Your task to perform on an android device: turn off data saver in the chrome app Image 0: 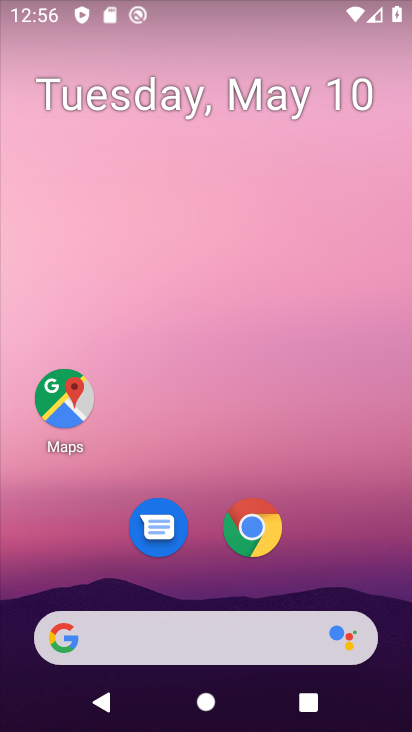
Step 0: click (254, 538)
Your task to perform on an android device: turn off data saver in the chrome app Image 1: 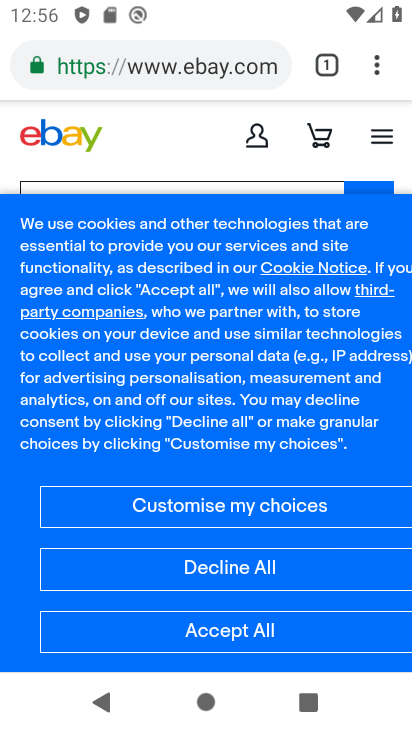
Step 1: drag from (378, 67) to (152, 593)
Your task to perform on an android device: turn off data saver in the chrome app Image 2: 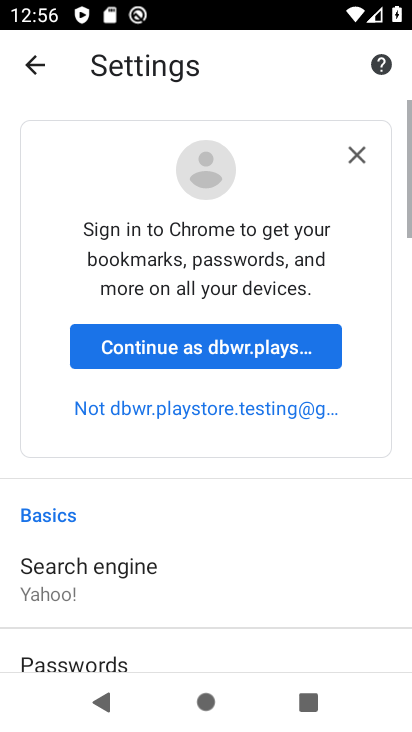
Step 2: drag from (228, 596) to (257, 220)
Your task to perform on an android device: turn off data saver in the chrome app Image 3: 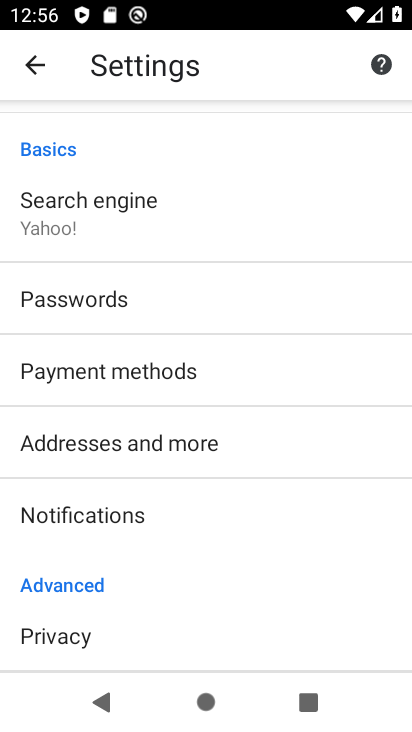
Step 3: drag from (201, 509) to (201, 319)
Your task to perform on an android device: turn off data saver in the chrome app Image 4: 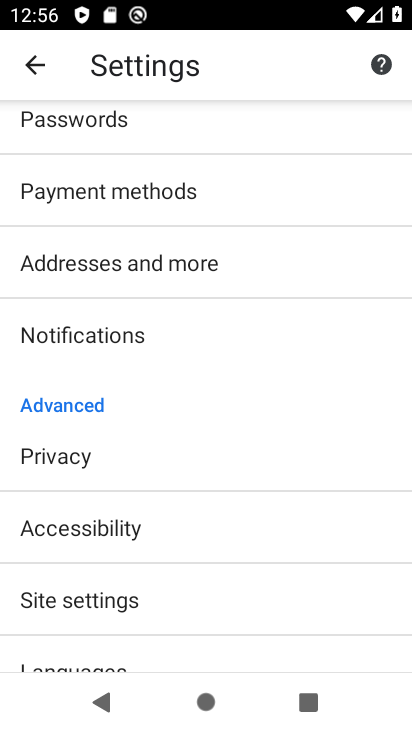
Step 4: drag from (218, 575) to (223, 377)
Your task to perform on an android device: turn off data saver in the chrome app Image 5: 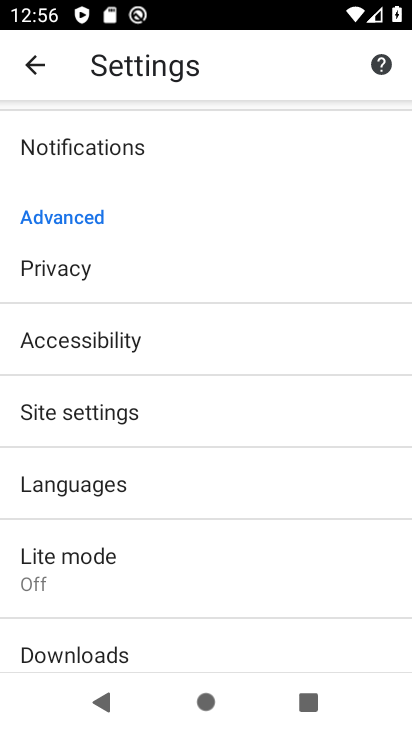
Step 5: click (71, 562)
Your task to perform on an android device: turn off data saver in the chrome app Image 6: 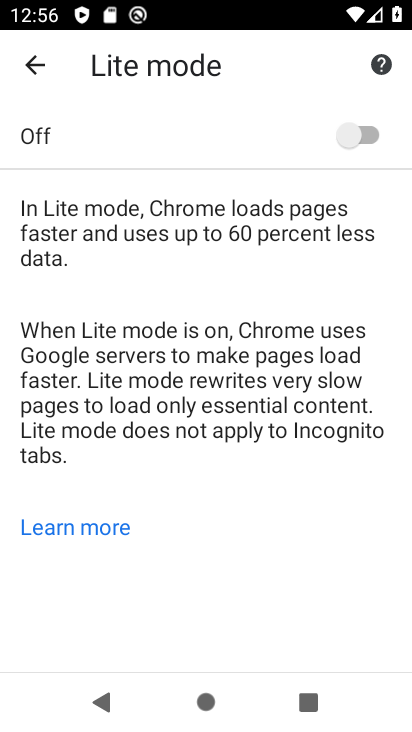
Step 6: task complete